Your task to perform on an android device: turn off javascript in the chrome app Image 0: 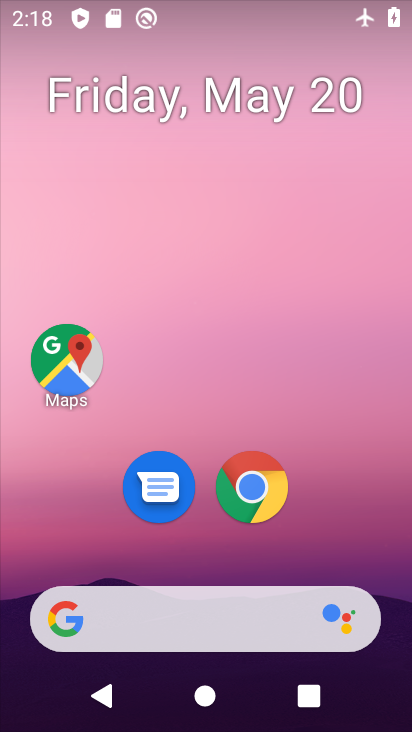
Step 0: drag from (351, 685) to (362, 19)
Your task to perform on an android device: turn off javascript in the chrome app Image 1: 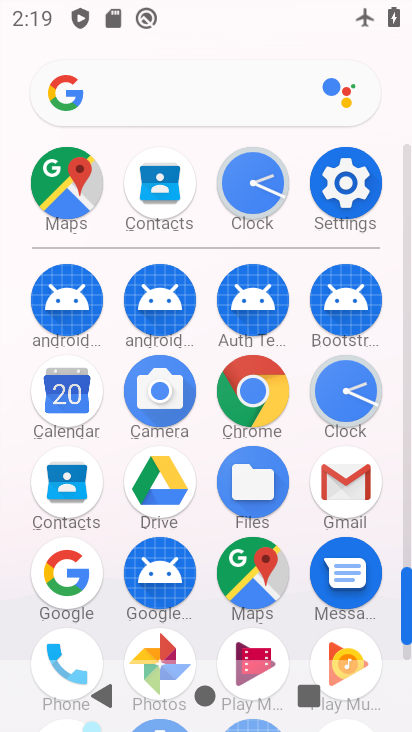
Step 1: click (240, 382)
Your task to perform on an android device: turn off javascript in the chrome app Image 2: 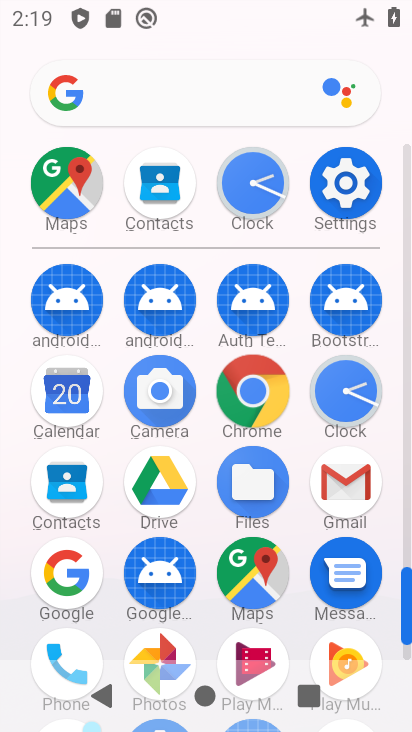
Step 2: click (240, 382)
Your task to perform on an android device: turn off javascript in the chrome app Image 3: 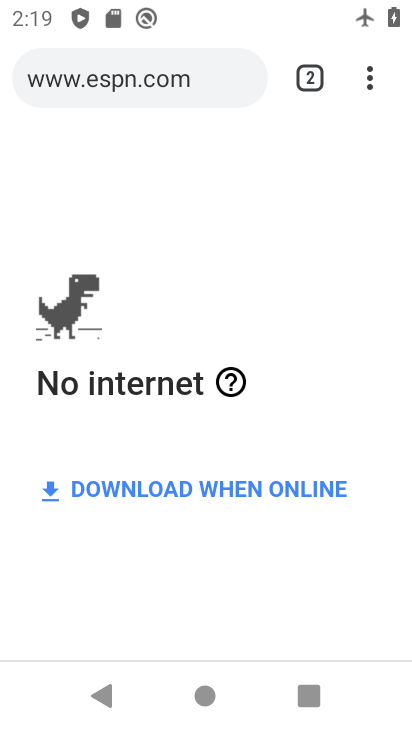
Step 3: task complete